Your task to perform on an android device: change text size in settings app Image 0: 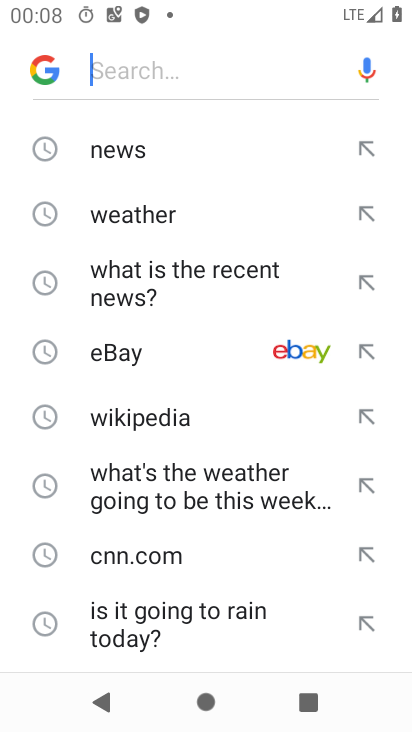
Step 0: drag from (211, 575) to (253, 179)
Your task to perform on an android device: change text size in settings app Image 1: 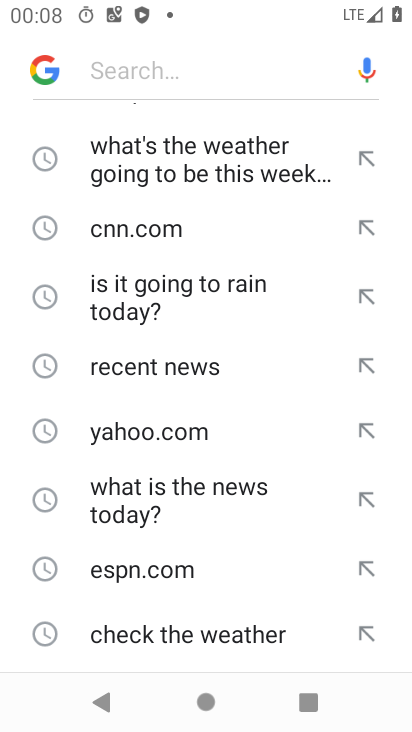
Step 1: drag from (186, 576) to (194, 177)
Your task to perform on an android device: change text size in settings app Image 2: 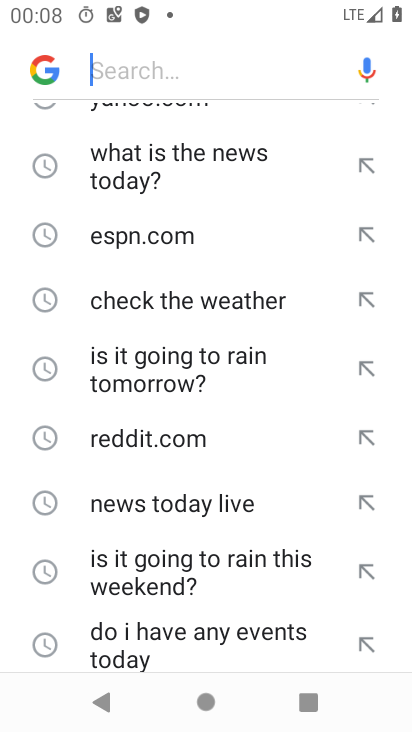
Step 2: drag from (145, 277) to (344, 710)
Your task to perform on an android device: change text size in settings app Image 3: 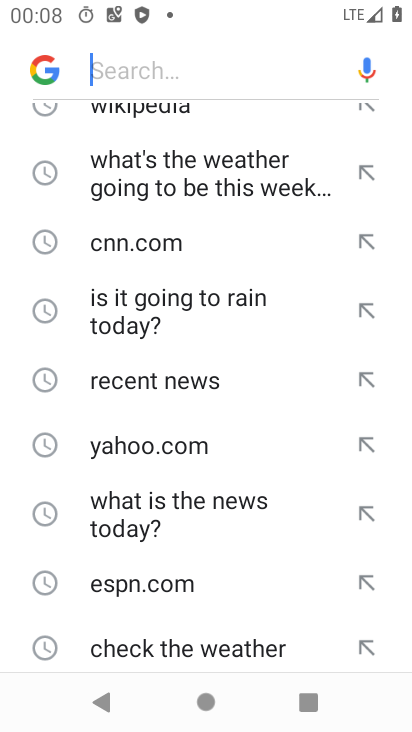
Step 3: press home button
Your task to perform on an android device: change text size in settings app Image 4: 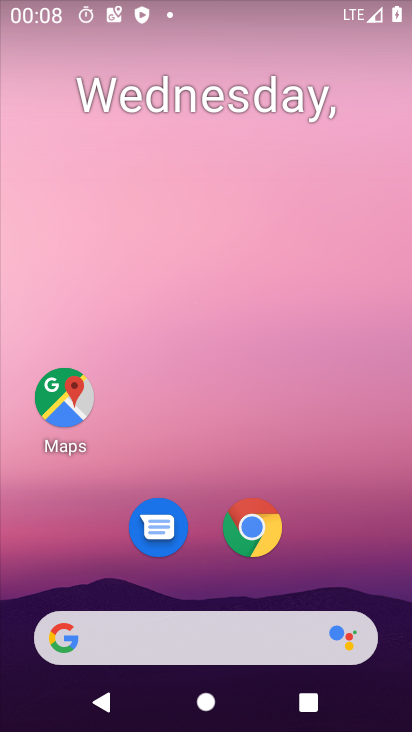
Step 4: drag from (191, 514) to (187, 54)
Your task to perform on an android device: change text size in settings app Image 5: 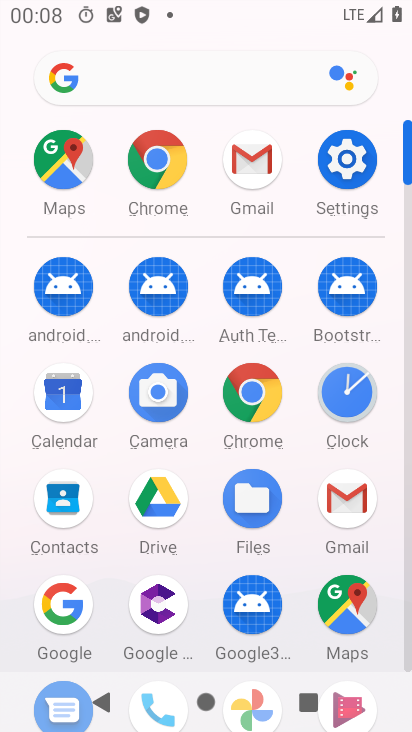
Step 5: click (327, 155)
Your task to perform on an android device: change text size in settings app Image 6: 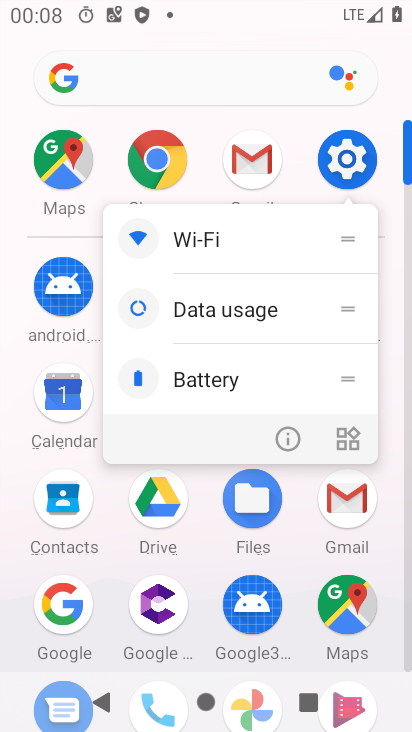
Step 6: click (286, 433)
Your task to perform on an android device: change text size in settings app Image 7: 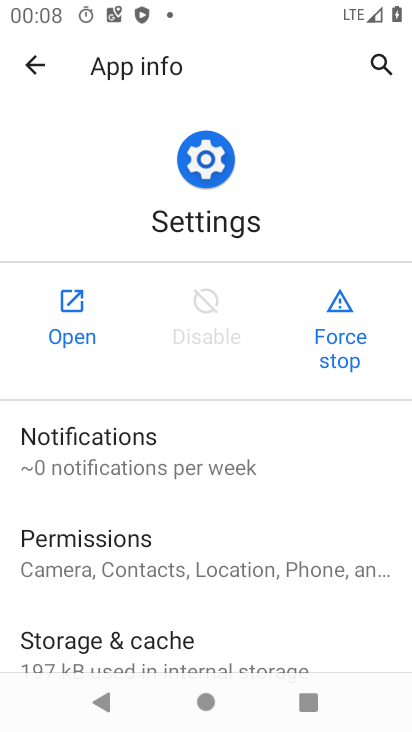
Step 7: click (58, 306)
Your task to perform on an android device: change text size in settings app Image 8: 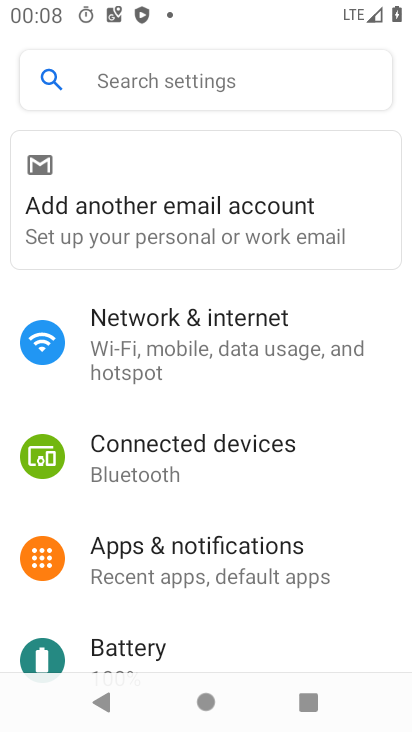
Step 8: drag from (205, 580) to (261, 2)
Your task to perform on an android device: change text size in settings app Image 9: 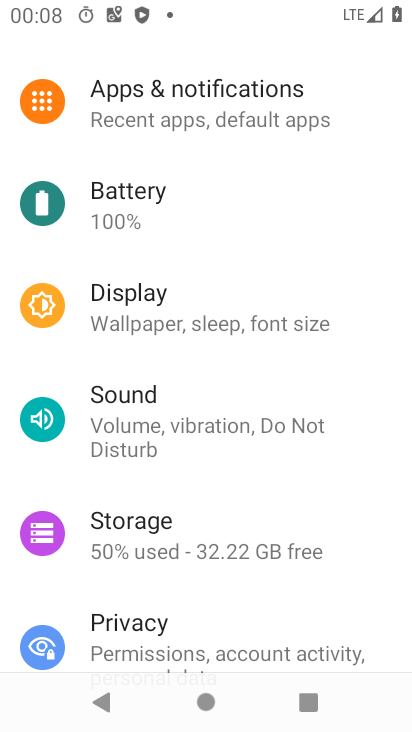
Step 9: drag from (183, 566) to (162, 79)
Your task to perform on an android device: change text size in settings app Image 10: 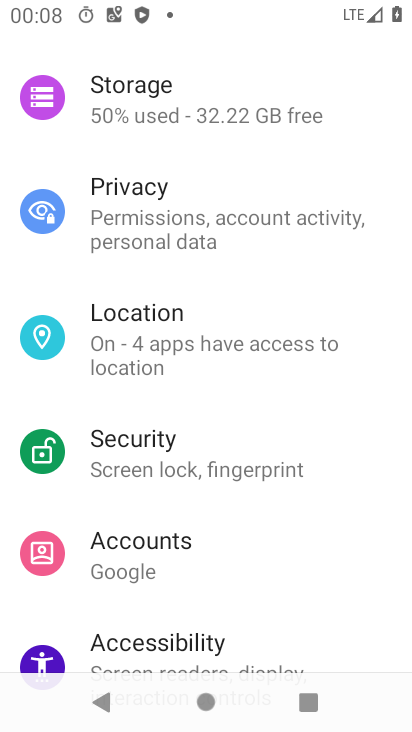
Step 10: drag from (202, 569) to (175, 123)
Your task to perform on an android device: change text size in settings app Image 11: 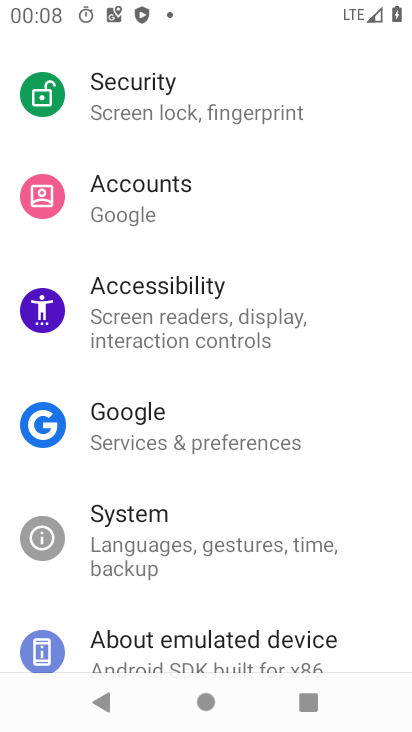
Step 11: drag from (222, 190) to (374, 729)
Your task to perform on an android device: change text size in settings app Image 12: 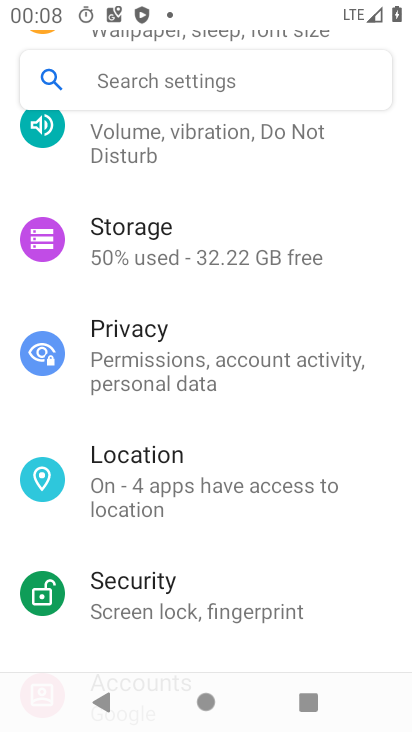
Step 12: drag from (254, 541) to (336, 725)
Your task to perform on an android device: change text size in settings app Image 13: 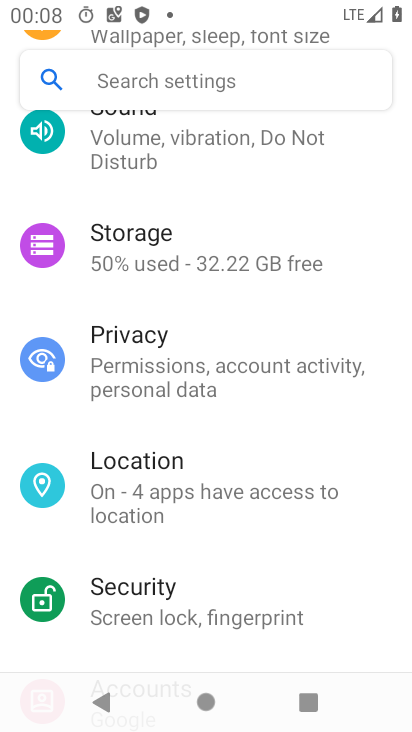
Step 13: drag from (196, 234) to (231, 664)
Your task to perform on an android device: change text size in settings app Image 14: 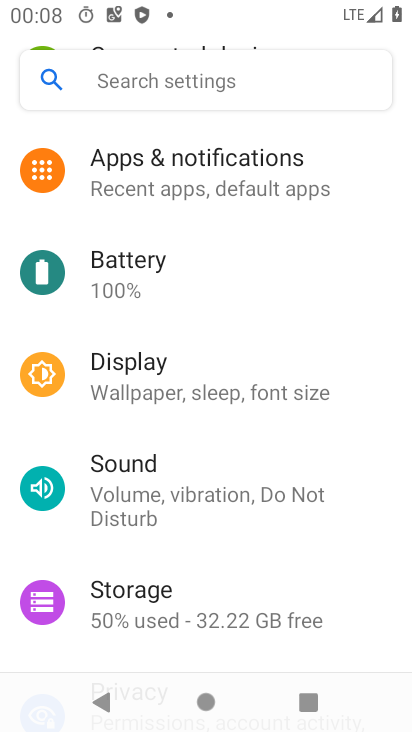
Step 14: drag from (218, 244) to (266, 585)
Your task to perform on an android device: change text size in settings app Image 15: 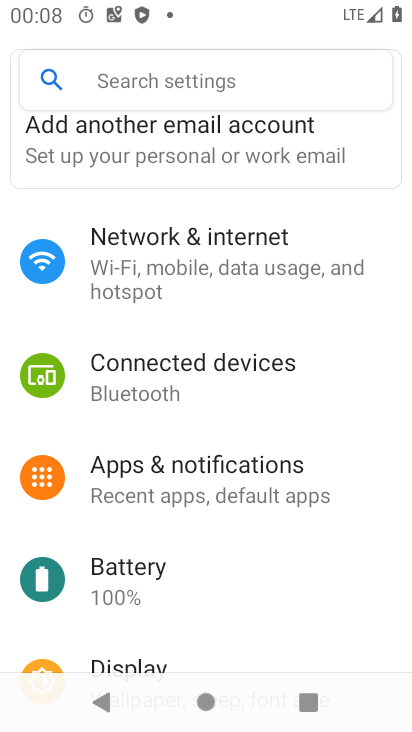
Step 15: drag from (194, 370) to (239, 53)
Your task to perform on an android device: change text size in settings app Image 16: 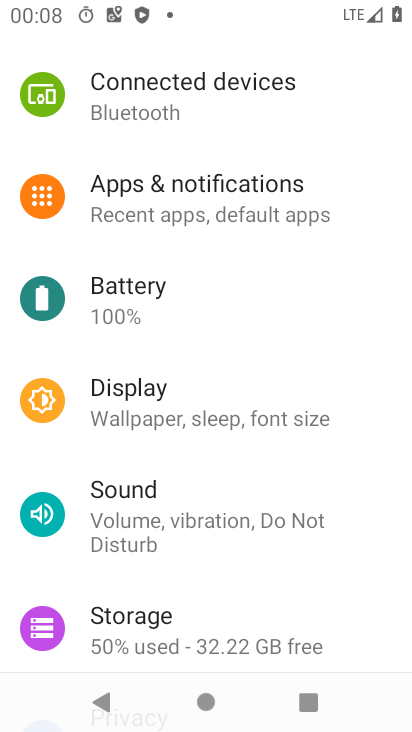
Step 16: drag from (204, 428) to (202, 172)
Your task to perform on an android device: change text size in settings app Image 17: 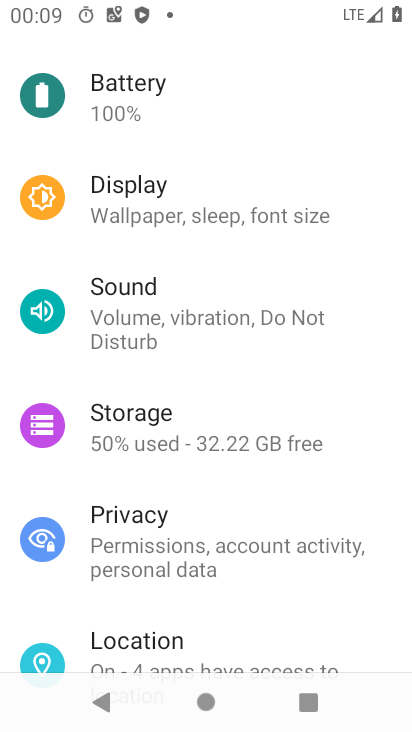
Step 17: click (151, 181)
Your task to perform on an android device: change text size in settings app Image 18: 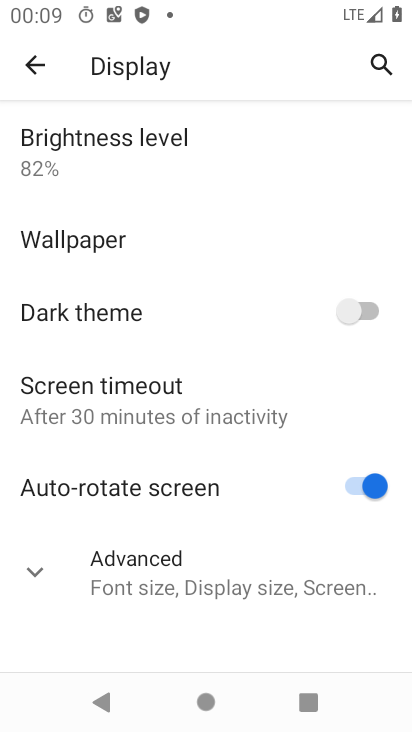
Step 18: click (212, 567)
Your task to perform on an android device: change text size in settings app Image 19: 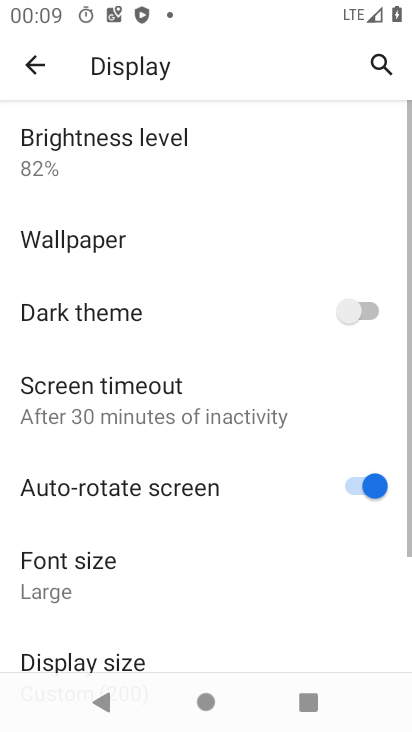
Step 19: drag from (204, 552) to (206, 59)
Your task to perform on an android device: change text size in settings app Image 20: 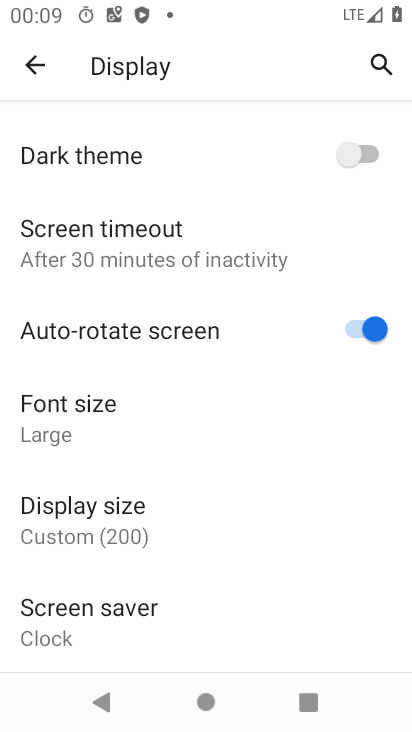
Step 20: click (147, 426)
Your task to perform on an android device: change text size in settings app Image 21: 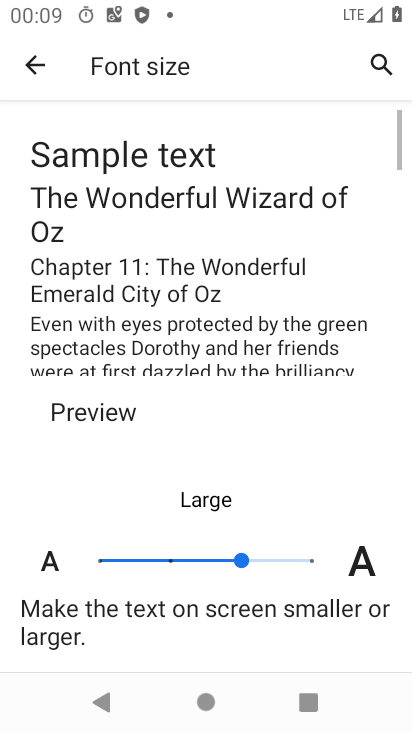
Step 21: drag from (179, 524) to (162, 10)
Your task to perform on an android device: change text size in settings app Image 22: 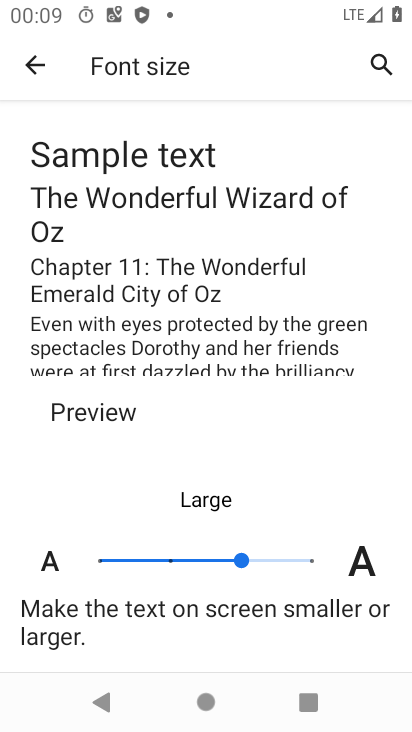
Step 22: click (171, 568)
Your task to perform on an android device: change text size in settings app Image 23: 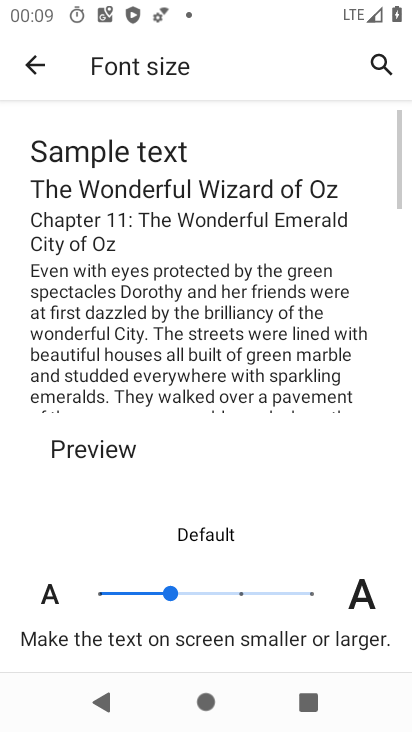
Step 23: task complete